Your task to perform on an android device: Search for Italian restaurants on Maps Image 0: 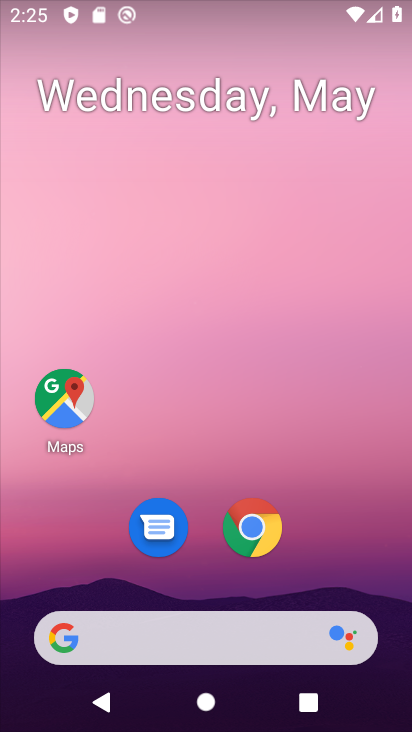
Step 0: drag from (391, 590) to (231, 71)
Your task to perform on an android device: Search for Italian restaurants on Maps Image 1: 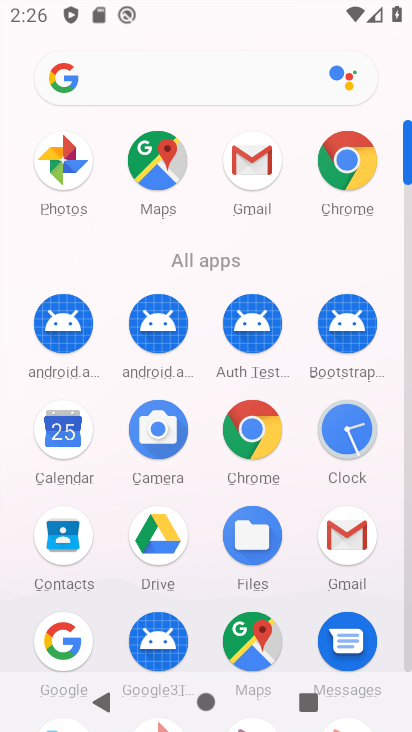
Step 1: click (254, 633)
Your task to perform on an android device: Search for Italian restaurants on Maps Image 2: 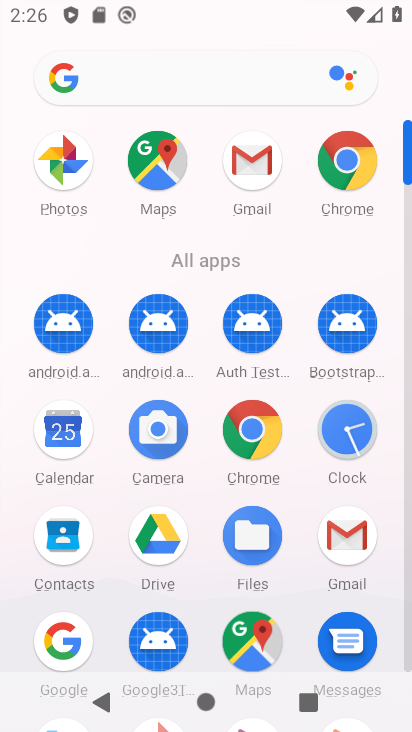
Step 2: click (254, 633)
Your task to perform on an android device: Search for Italian restaurants on Maps Image 3: 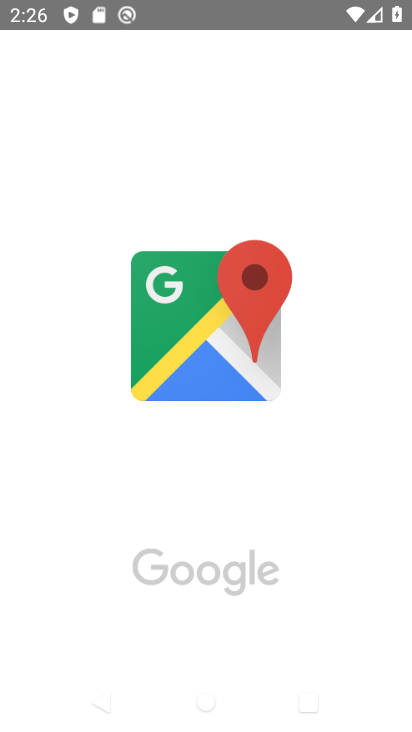
Step 3: click (255, 633)
Your task to perform on an android device: Search for Italian restaurants on Maps Image 4: 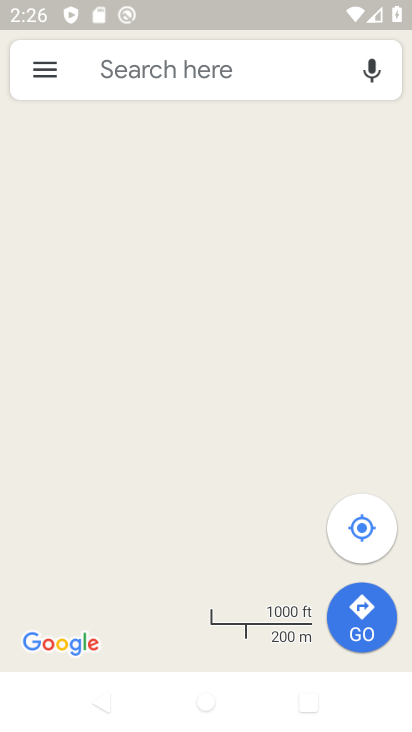
Step 4: click (91, 63)
Your task to perform on an android device: Search for Italian restaurants on Maps Image 5: 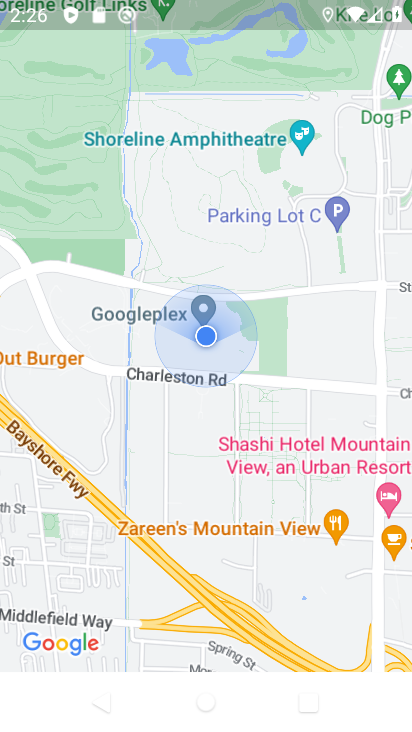
Step 5: drag from (93, 92) to (90, 234)
Your task to perform on an android device: Search for Italian restaurants on Maps Image 6: 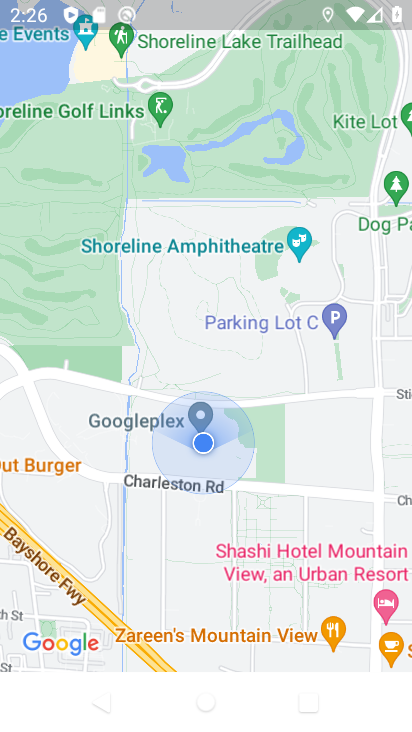
Step 6: drag from (85, 117) to (118, 452)
Your task to perform on an android device: Search for Italian restaurants on Maps Image 7: 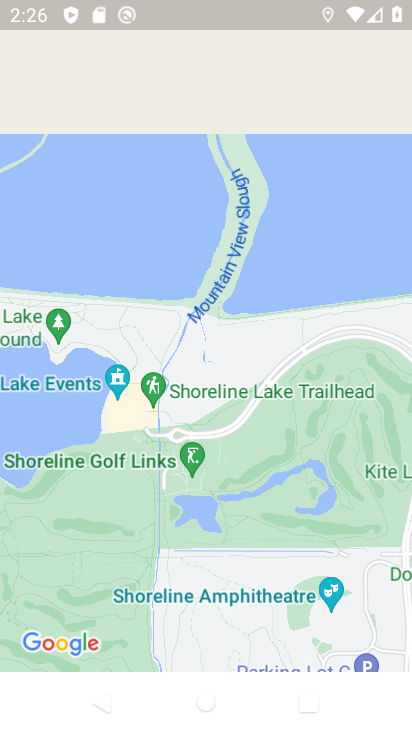
Step 7: drag from (110, 283) to (122, 685)
Your task to perform on an android device: Search for Italian restaurants on Maps Image 8: 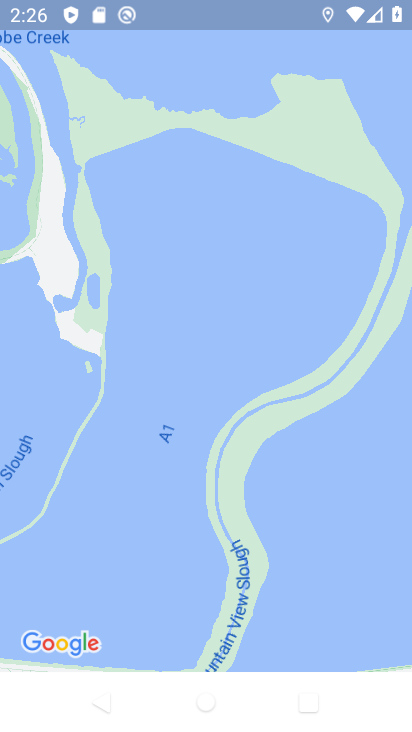
Step 8: drag from (160, 196) to (179, 458)
Your task to perform on an android device: Search for Italian restaurants on Maps Image 9: 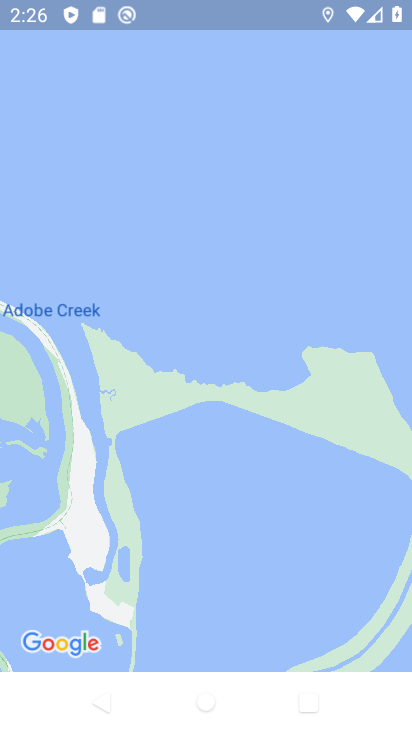
Step 9: drag from (191, 235) to (212, 326)
Your task to perform on an android device: Search for Italian restaurants on Maps Image 10: 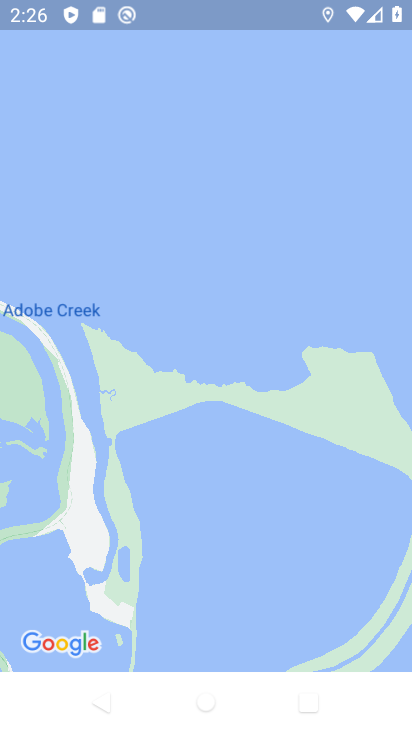
Step 10: drag from (166, 32) to (188, 414)
Your task to perform on an android device: Search for Italian restaurants on Maps Image 11: 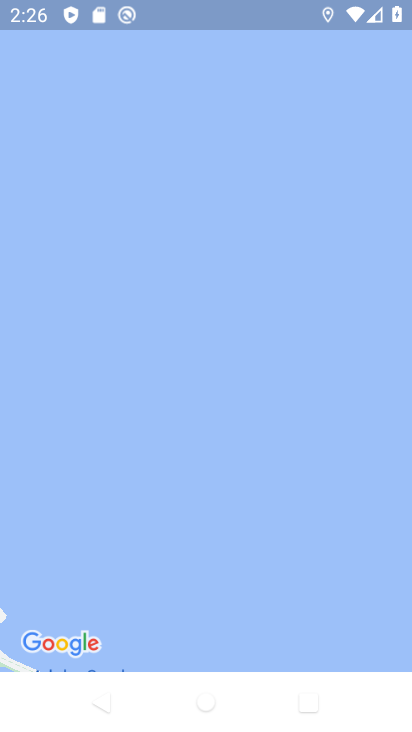
Step 11: drag from (166, 152) to (84, 440)
Your task to perform on an android device: Search for Italian restaurants on Maps Image 12: 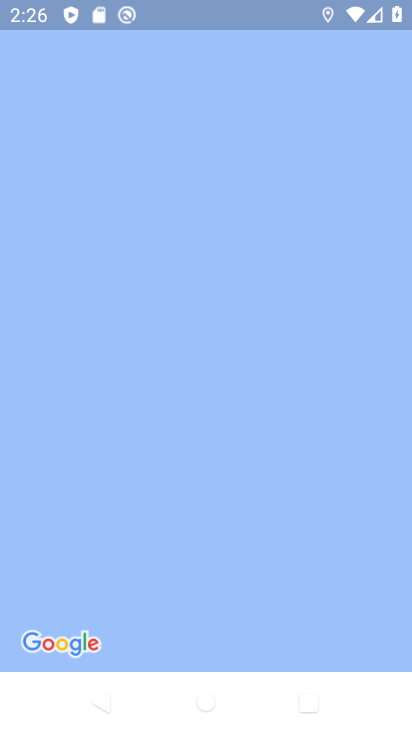
Step 12: click (100, 76)
Your task to perform on an android device: Search for Italian restaurants on Maps Image 13: 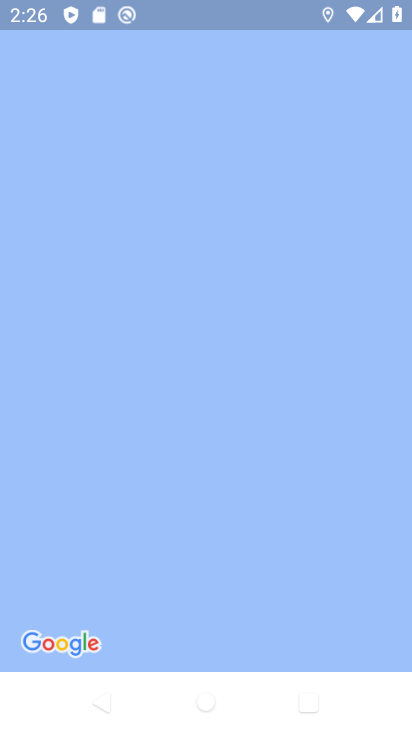
Step 13: click (105, 95)
Your task to perform on an android device: Search for Italian restaurants on Maps Image 14: 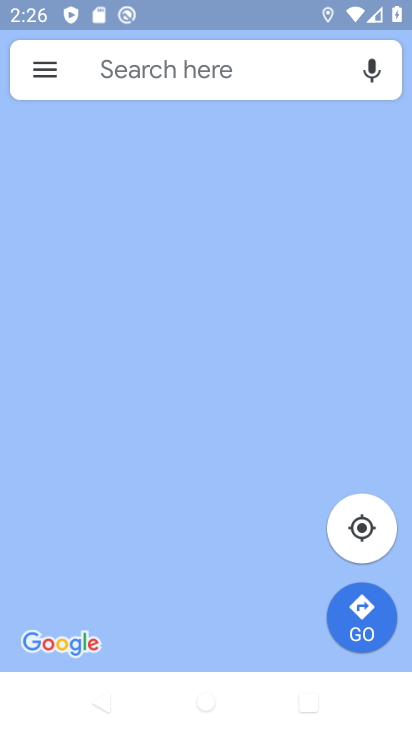
Step 14: click (115, 76)
Your task to perform on an android device: Search for Italian restaurants on Maps Image 15: 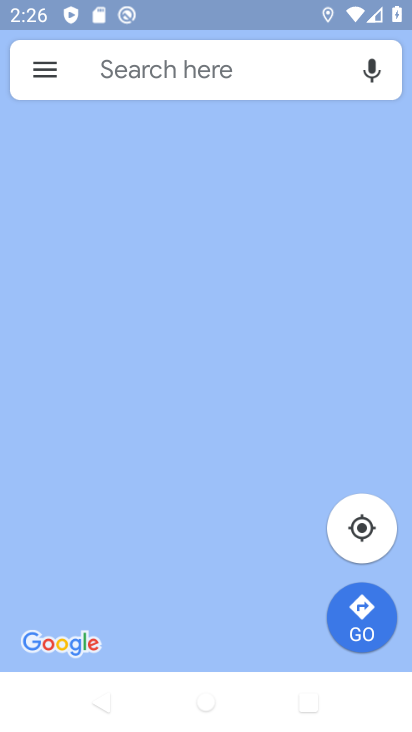
Step 15: click (113, 68)
Your task to perform on an android device: Search for Italian restaurants on Maps Image 16: 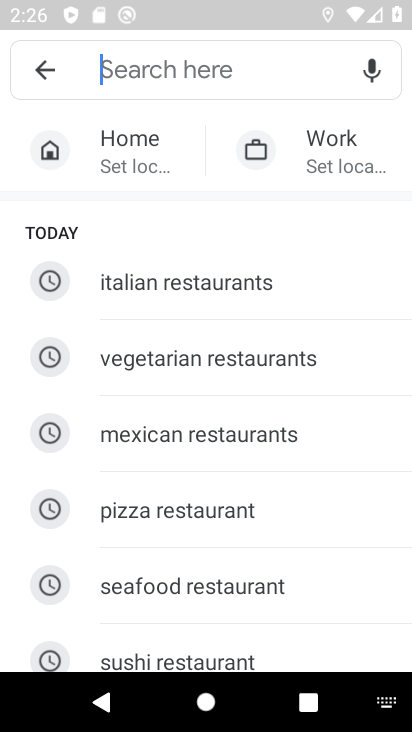
Step 16: click (140, 284)
Your task to perform on an android device: Search for Italian restaurants on Maps Image 17: 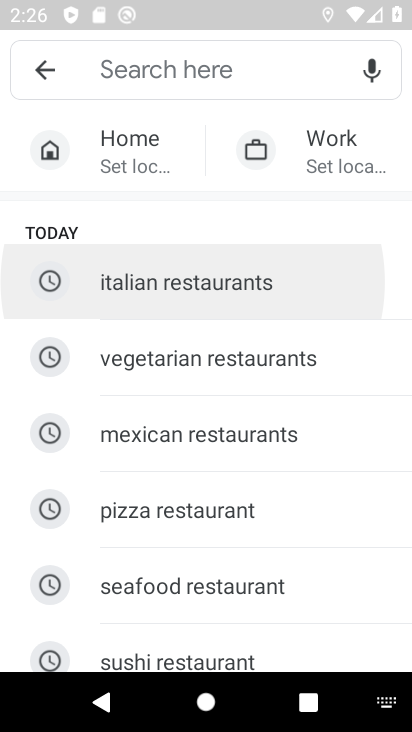
Step 17: click (140, 284)
Your task to perform on an android device: Search for Italian restaurants on Maps Image 18: 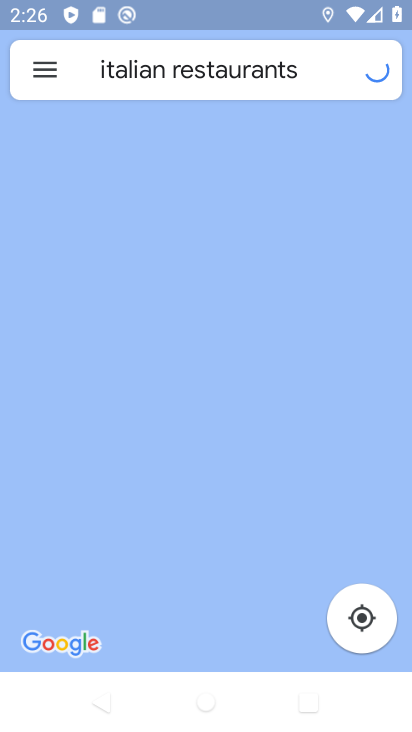
Step 18: click (140, 284)
Your task to perform on an android device: Search for Italian restaurants on Maps Image 19: 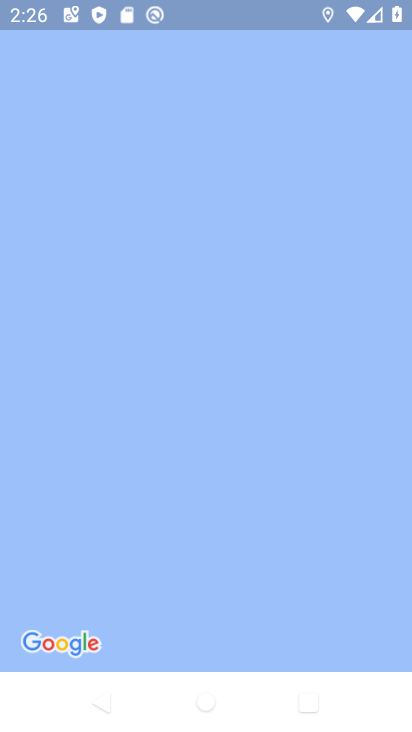
Step 19: task complete